Your task to perform on an android device: What is the news today? Image 0: 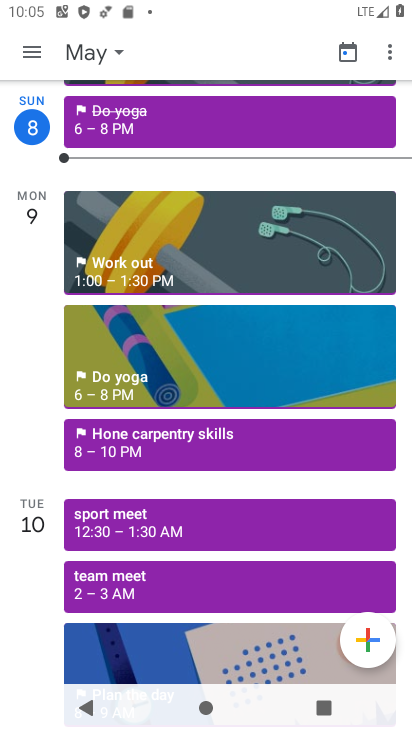
Step 0: press back button
Your task to perform on an android device: What is the news today? Image 1: 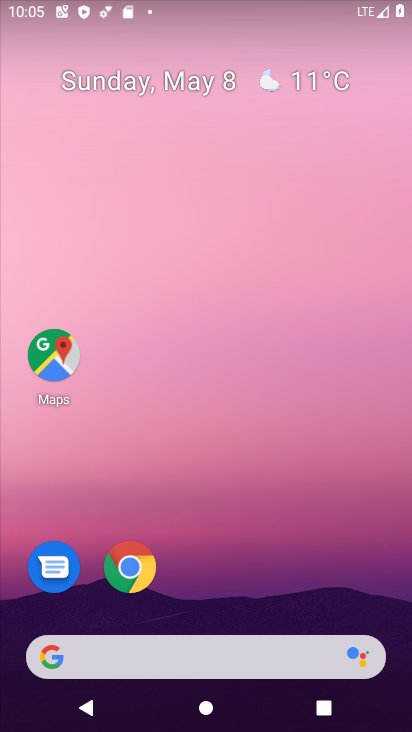
Step 1: click (196, 643)
Your task to perform on an android device: What is the news today? Image 2: 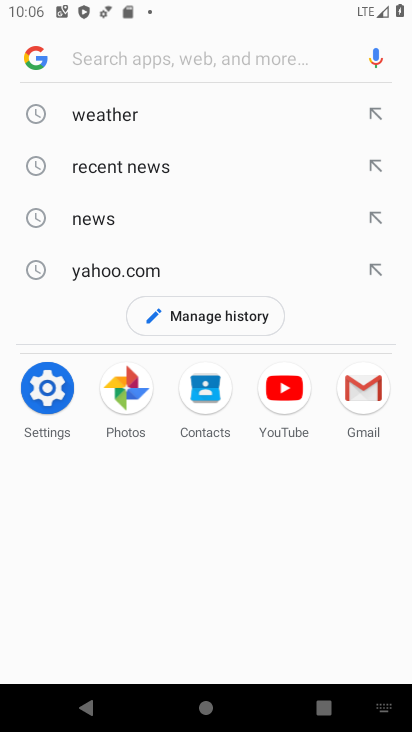
Step 2: type "news today"
Your task to perform on an android device: What is the news today? Image 3: 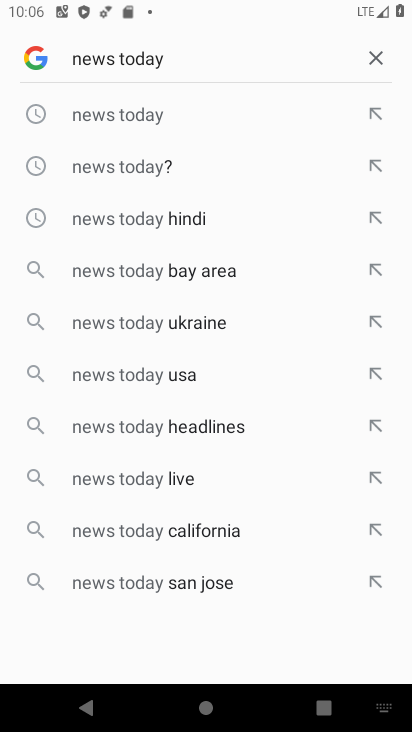
Step 3: click (110, 106)
Your task to perform on an android device: What is the news today? Image 4: 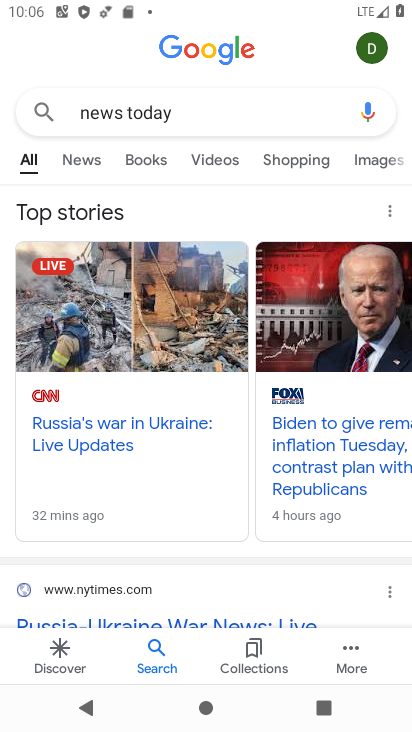
Step 4: task complete